Your task to perform on an android device: Open Google Chrome Image 0: 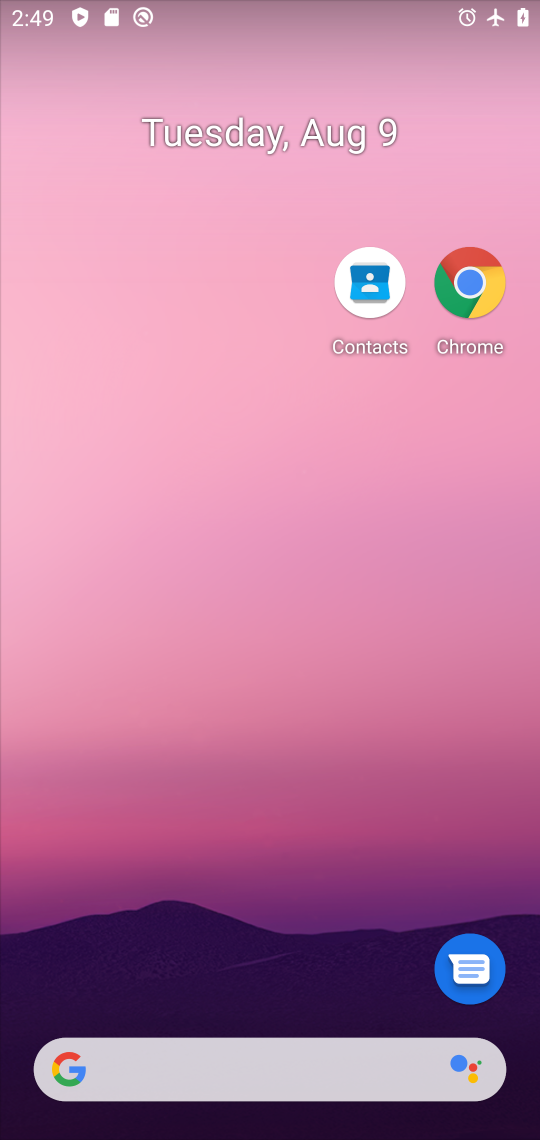
Step 0: drag from (386, 119) to (394, 38)
Your task to perform on an android device: Open Google Chrome Image 1: 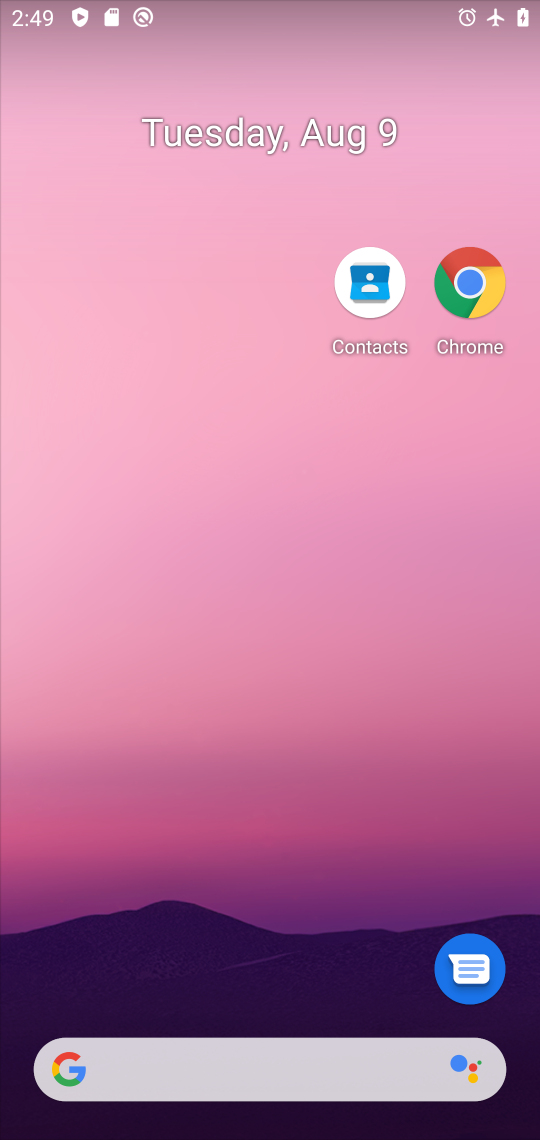
Step 1: drag from (249, 957) to (280, 55)
Your task to perform on an android device: Open Google Chrome Image 2: 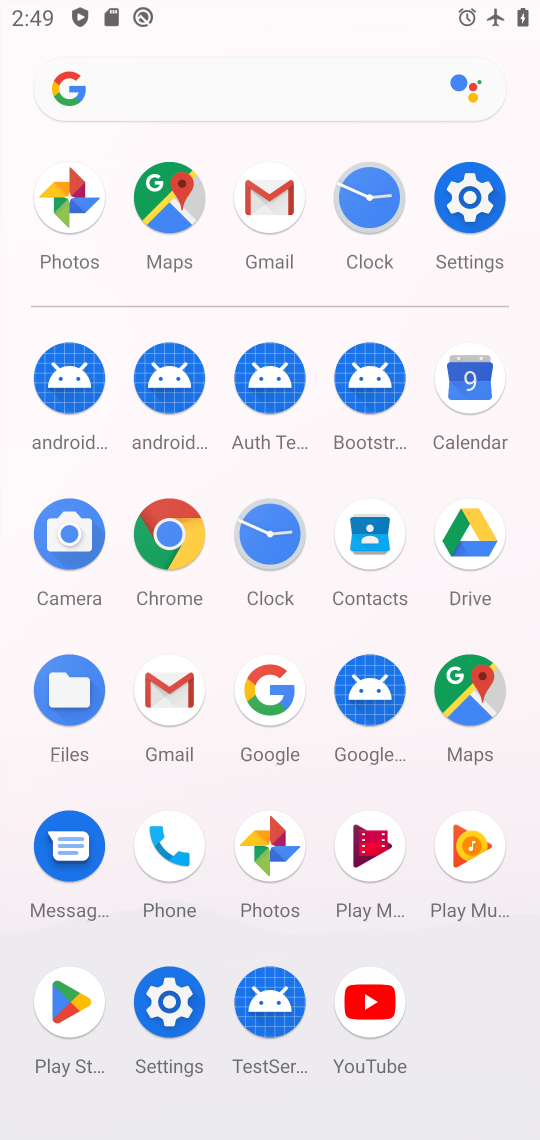
Step 2: click (158, 547)
Your task to perform on an android device: Open Google Chrome Image 3: 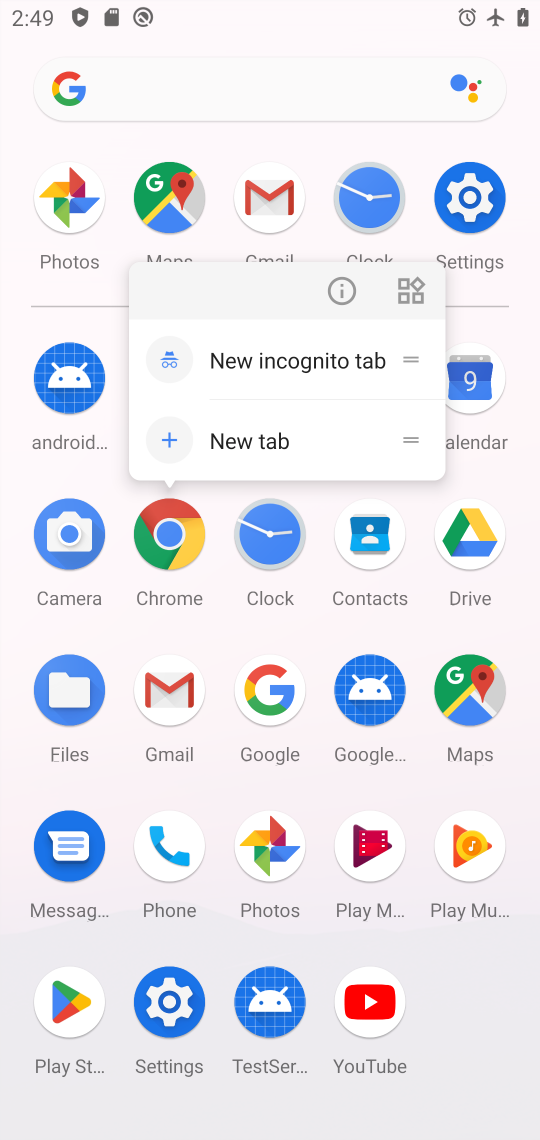
Step 3: click (332, 280)
Your task to perform on an android device: Open Google Chrome Image 4: 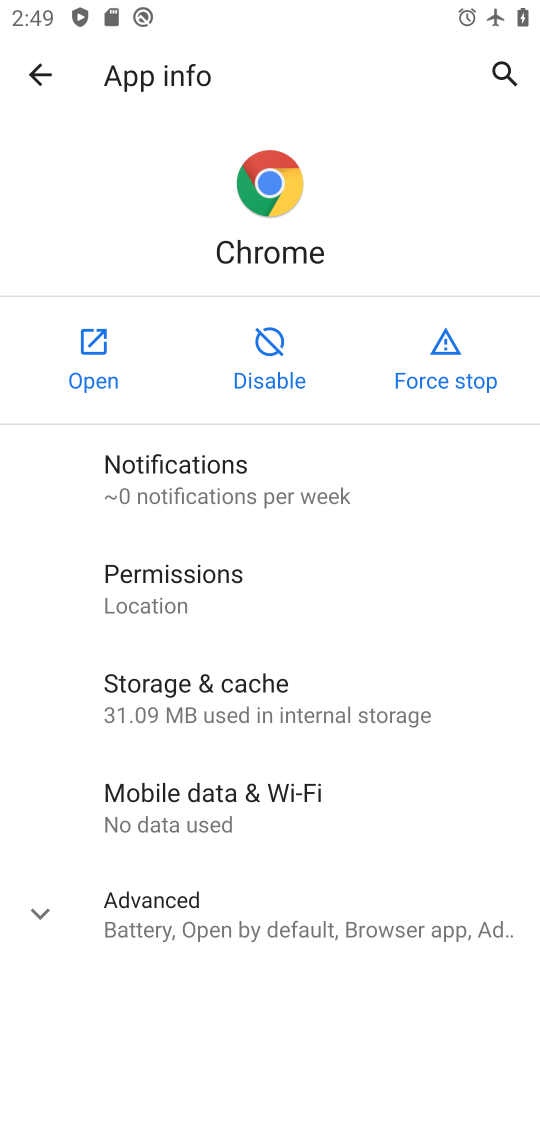
Step 4: click (103, 331)
Your task to perform on an android device: Open Google Chrome Image 5: 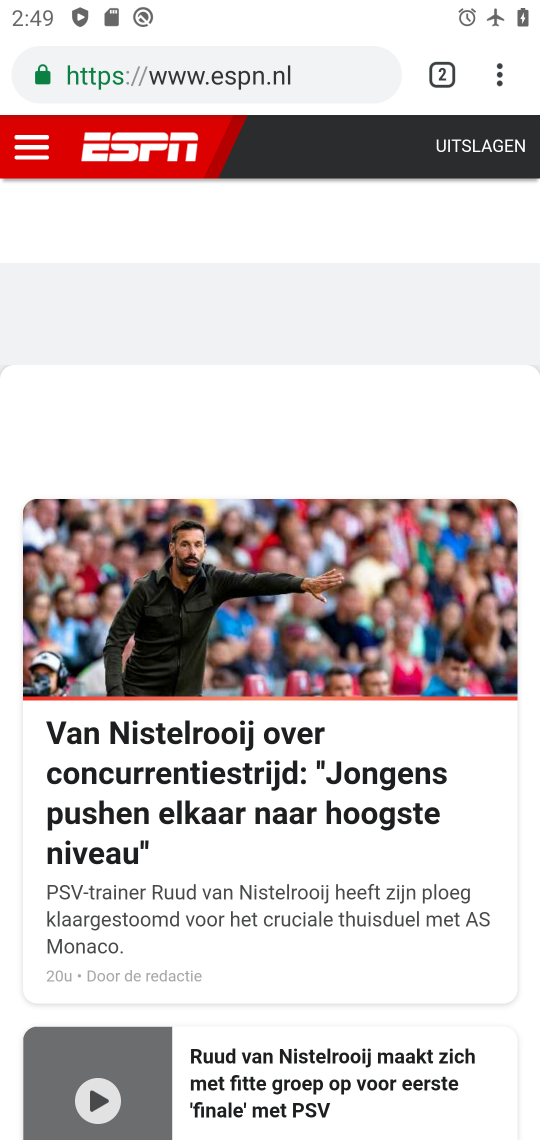
Step 5: task complete